Your task to perform on an android device: Is it going to rain this weekend? Image 0: 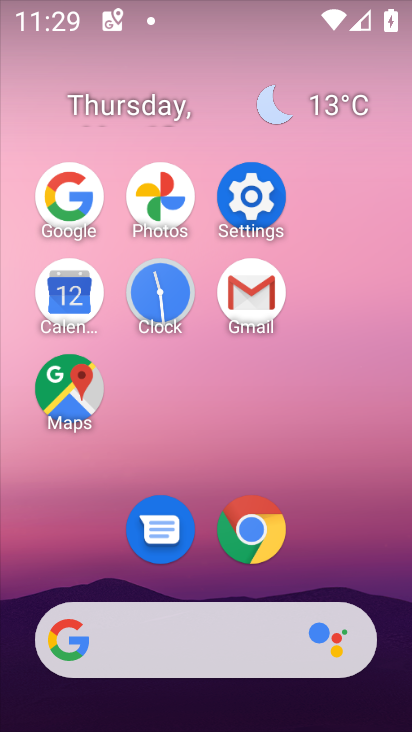
Step 0: click (82, 217)
Your task to perform on an android device: Is it going to rain this weekend? Image 1: 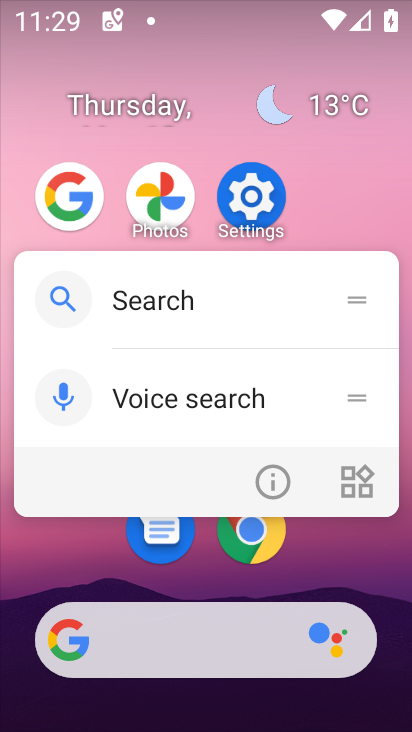
Step 1: click (79, 201)
Your task to perform on an android device: Is it going to rain this weekend? Image 2: 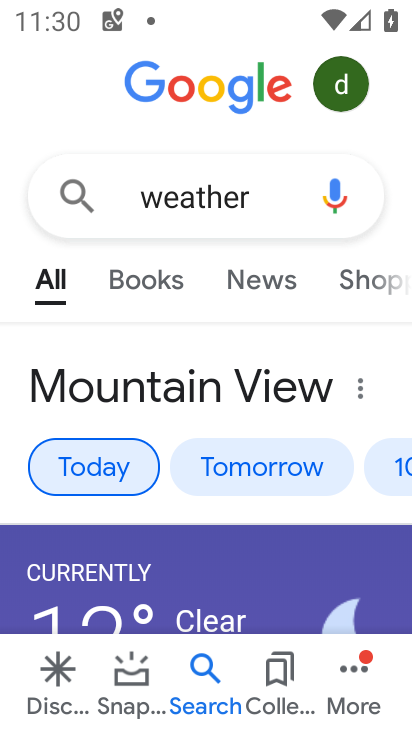
Step 2: click (399, 476)
Your task to perform on an android device: Is it going to rain this weekend? Image 3: 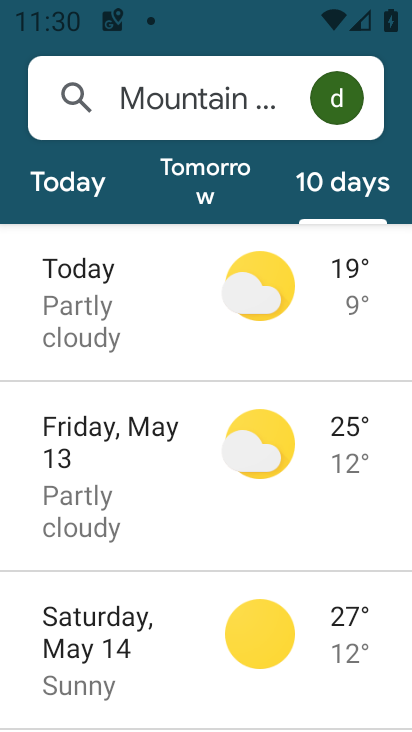
Step 3: click (154, 595)
Your task to perform on an android device: Is it going to rain this weekend? Image 4: 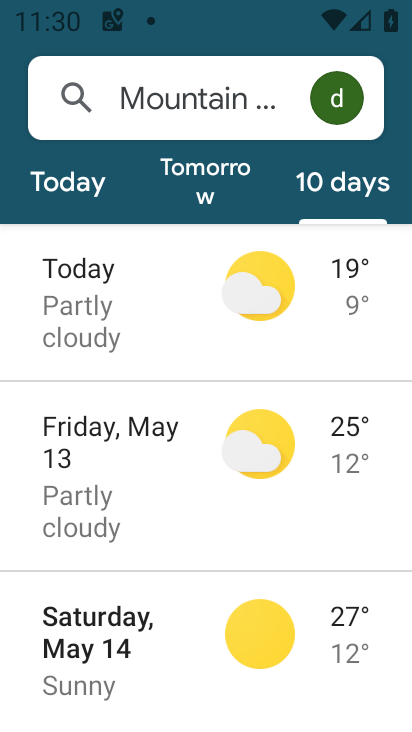
Step 4: click (158, 665)
Your task to perform on an android device: Is it going to rain this weekend? Image 5: 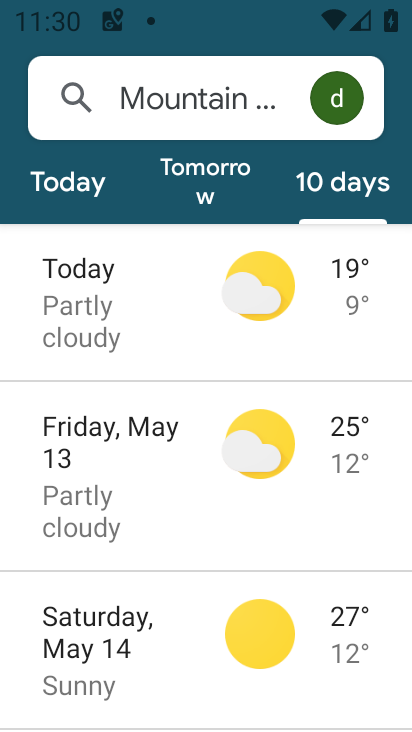
Step 5: task complete